Your task to perform on an android device: toggle pop-ups in chrome Image 0: 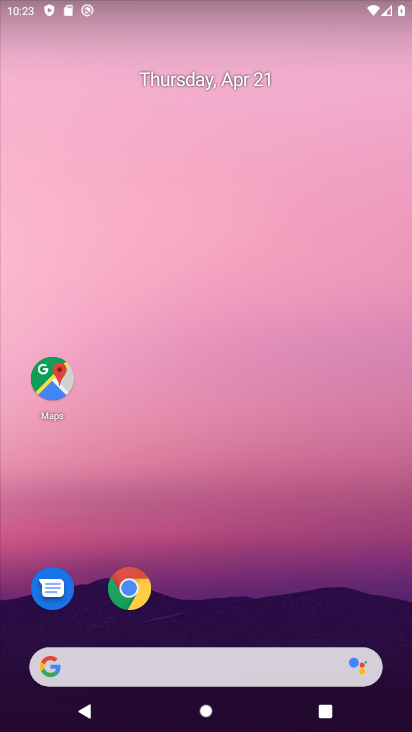
Step 0: click (136, 584)
Your task to perform on an android device: toggle pop-ups in chrome Image 1: 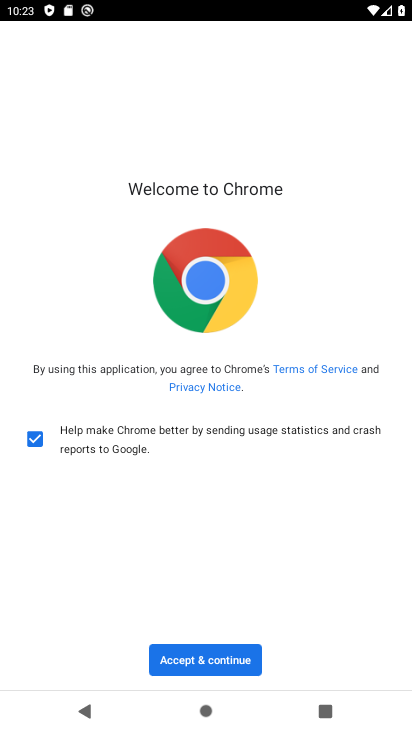
Step 1: click (200, 658)
Your task to perform on an android device: toggle pop-ups in chrome Image 2: 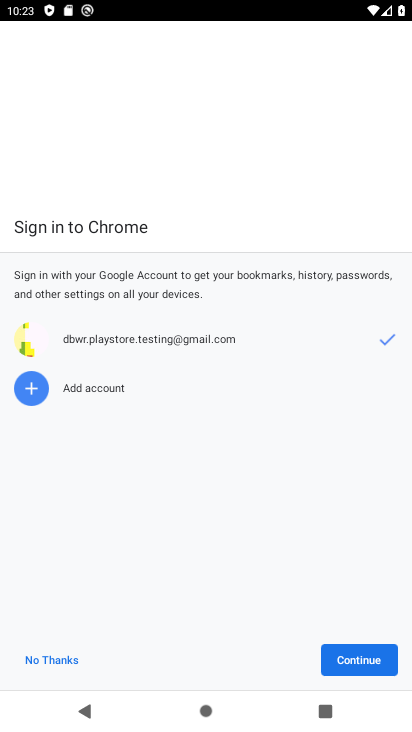
Step 2: click (351, 659)
Your task to perform on an android device: toggle pop-ups in chrome Image 3: 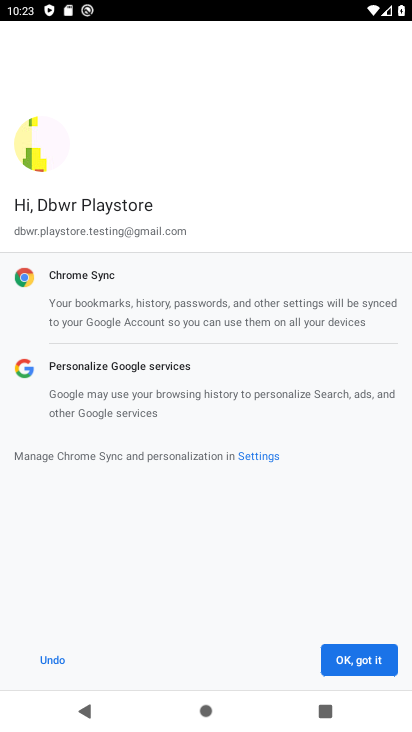
Step 3: click (352, 659)
Your task to perform on an android device: toggle pop-ups in chrome Image 4: 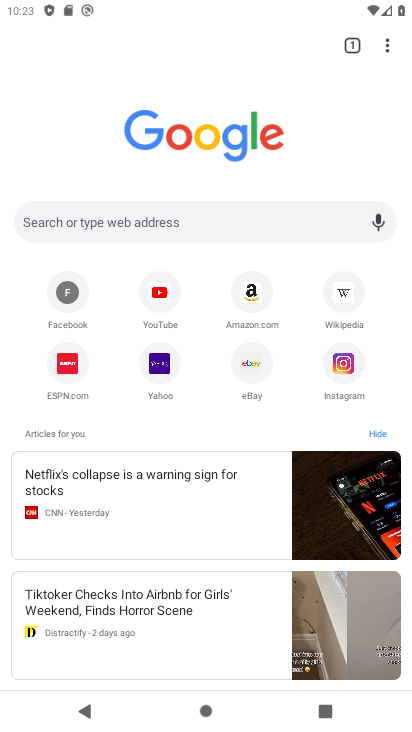
Step 4: click (392, 46)
Your task to perform on an android device: toggle pop-ups in chrome Image 5: 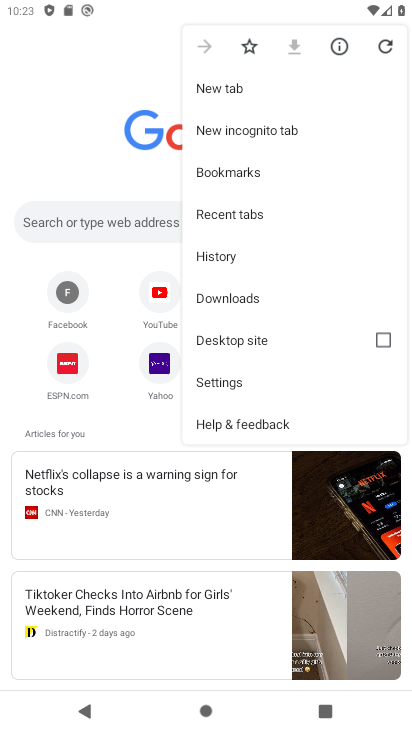
Step 5: click (246, 379)
Your task to perform on an android device: toggle pop-ups in chrome Image 6: 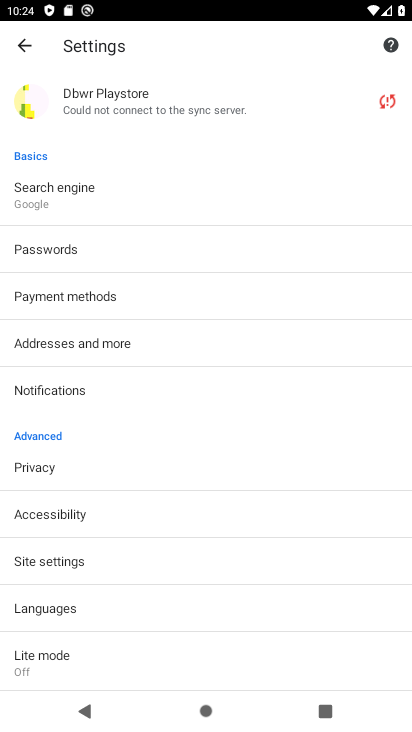
Step 6: drag from (197, 593) to (149, 345)
Your task to perform on an android device: toggle pop-ups in chrome Image 7: 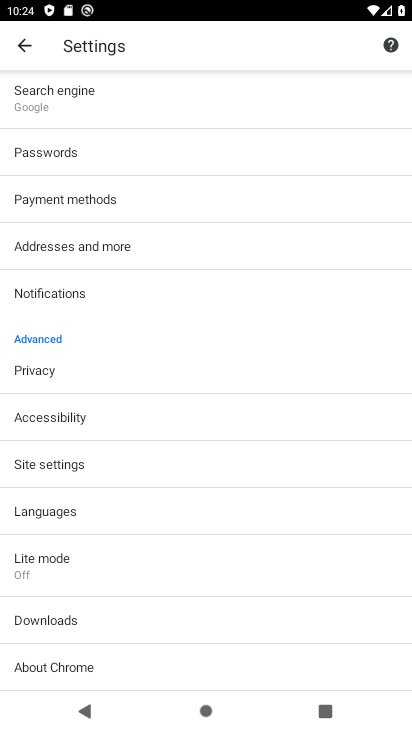
Step 7: click (111, 462)
Your task to perform on an android device: toggle pop-ups in chrome Image 8: 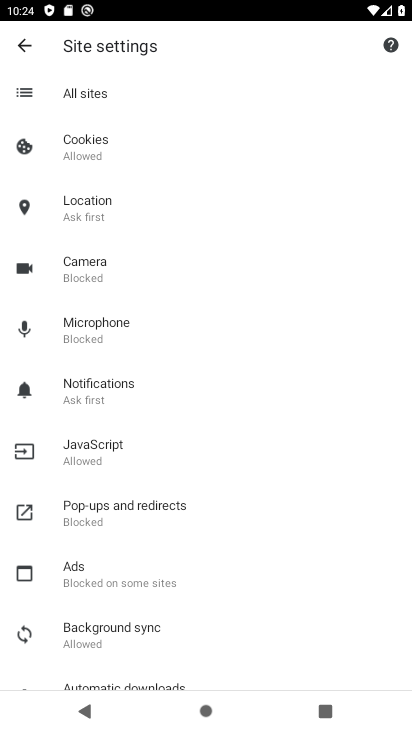
Step 8: click (140, 502)
Your task to perform on an android device: toggle pop-ups in chrome Image 9: 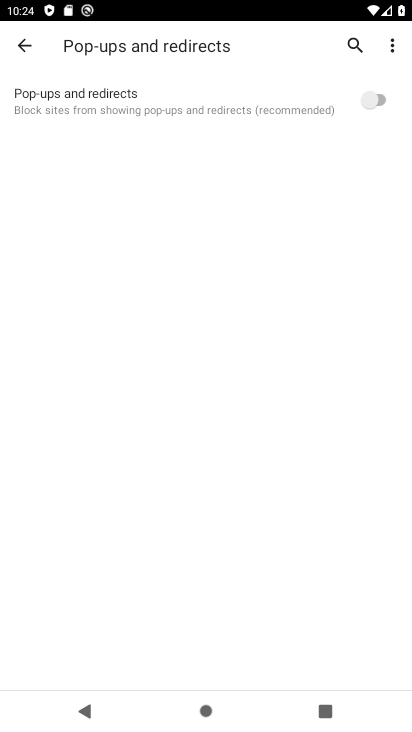
Step 9: click (372, 91)
Your task to perform on an android device: toggle pop-ups in chrome Image 10: 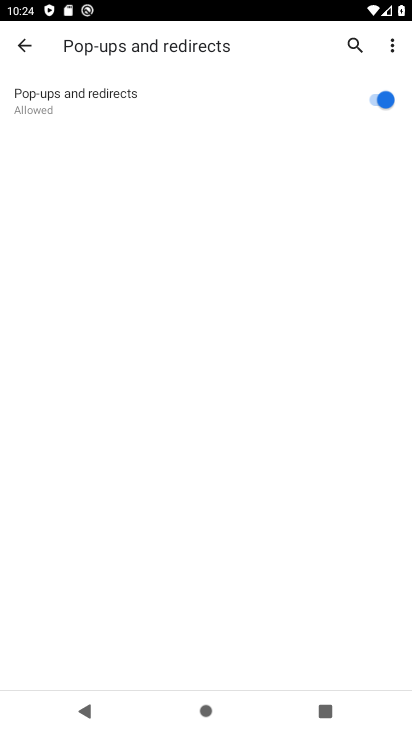
Step 10: task complete